Your task to perform on an android device: set an alarm Image 0: 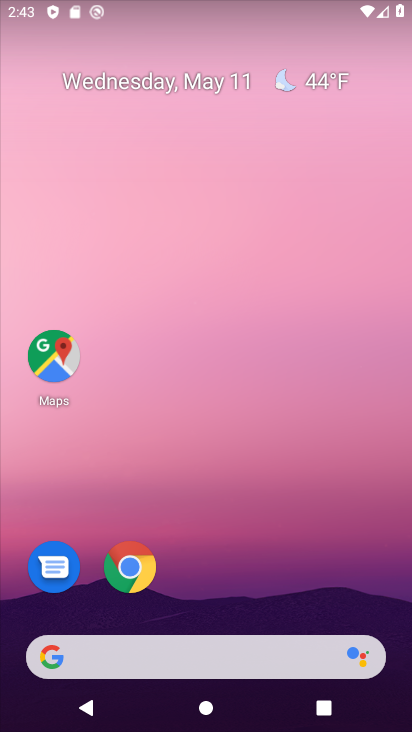
Step 0: drag from (246, 536) to (224, 3)
Your task to perform on an android device: set an alarm Image 1: 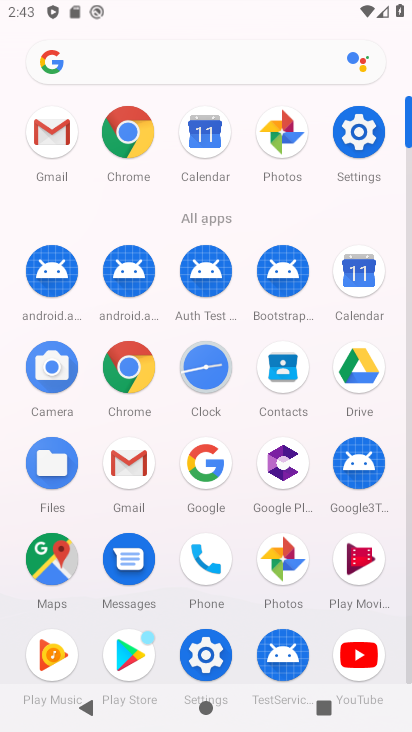
Step 1: drag from (4, 490) to (11, 192)
Your task to perform on an android device: set an alarm Image 2: 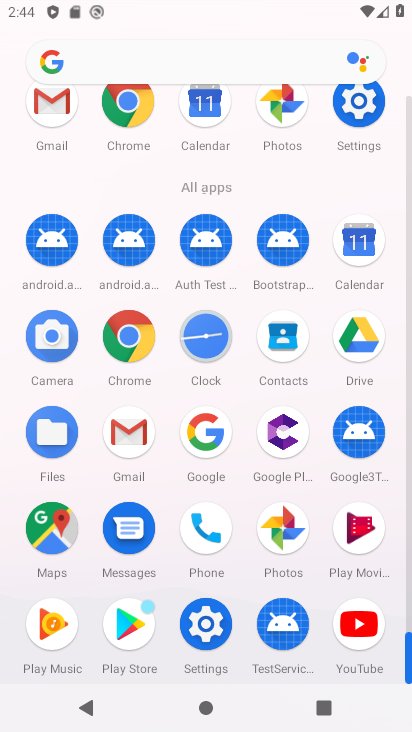
Step 2: click (206, 333)
Your task to perform on an android device: set an alarm Image 3: 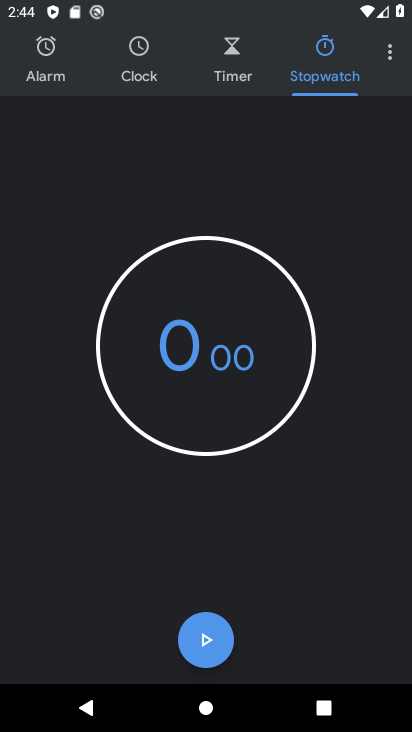
Step 3: click (48, 68)
Your task to perform on an android device: set an alarm Image 4: 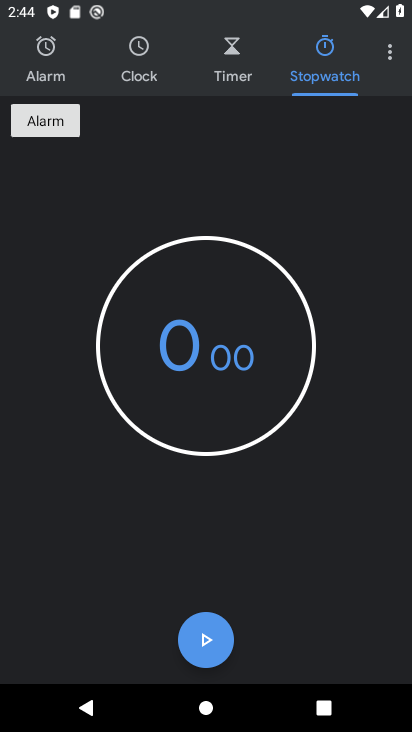
Step 4: click (49, 67)
Your task to perform on an android device: set an alarm Image 5: 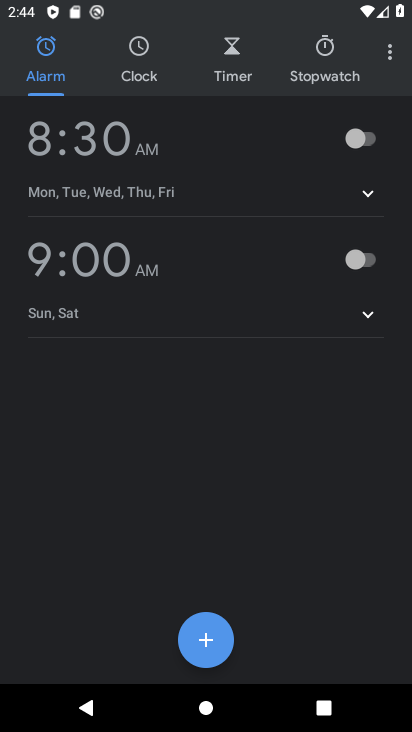
Step 5: click (208, 624)
Your task to perform on an android device: set an alarm Image 6: 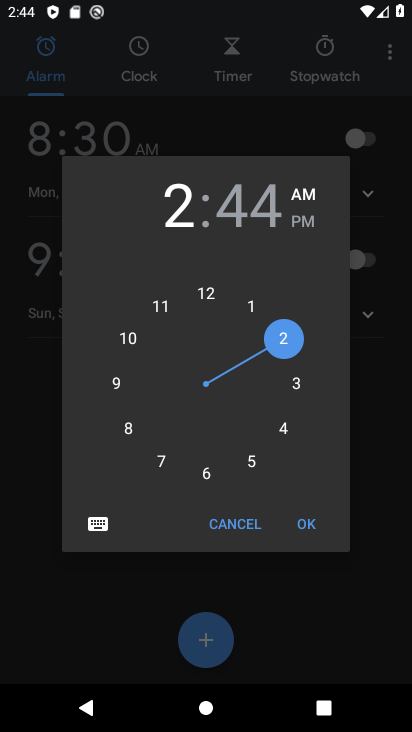
Step 6: click (215, 463)
Your task to perform on an android device: set an alarm Image 7: 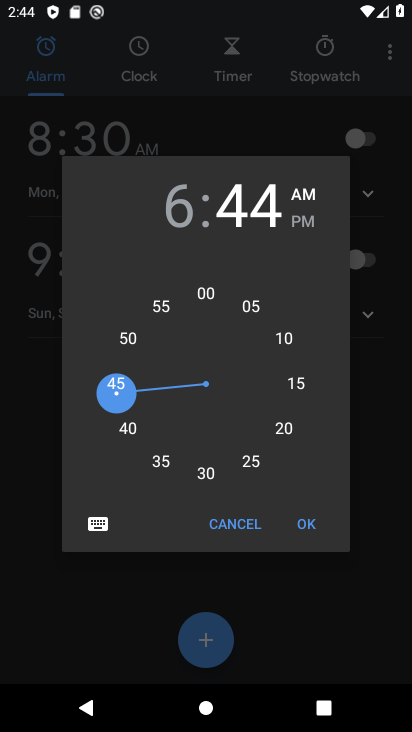
Step 7: click (315, 524)
Your task to perform on an android device: set an alarm Image 8: 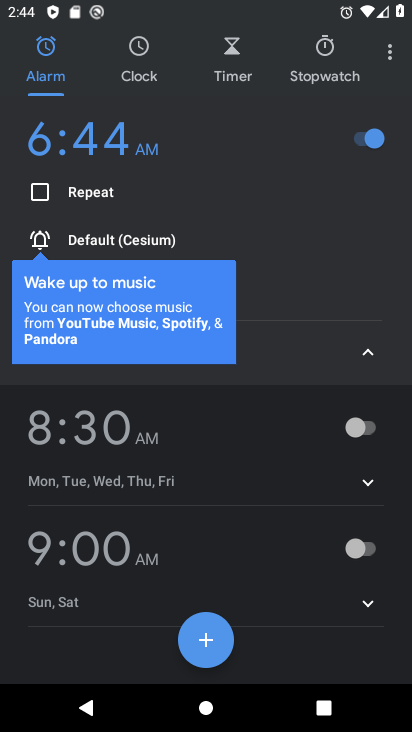
Step 8: task complete